Your task to perform on an android device: change timer sound Image 0: 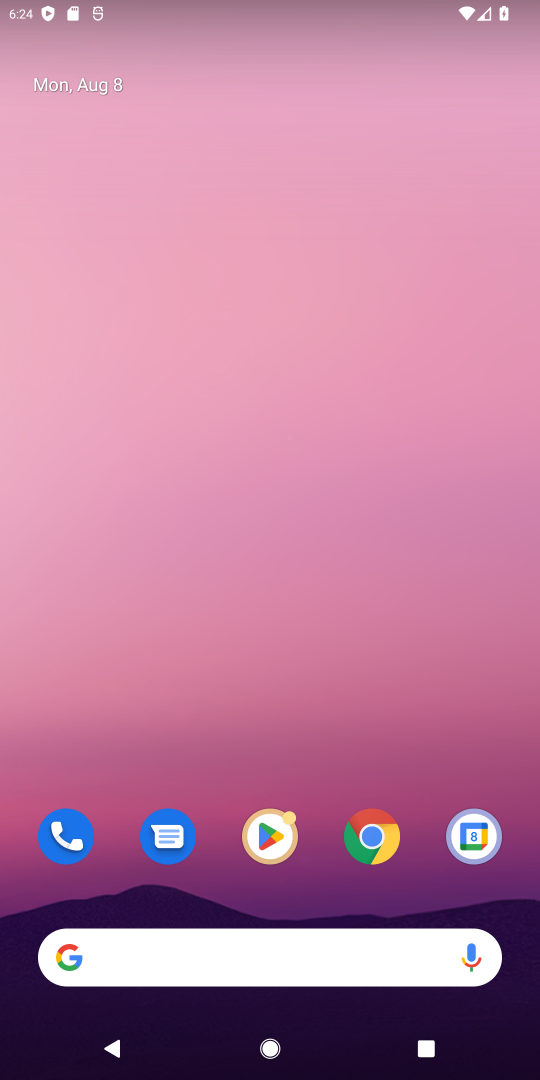
Step 0: drag from (402, 755) to (277, 25)
Your task to perform on an android device: change timer sound Image 1: 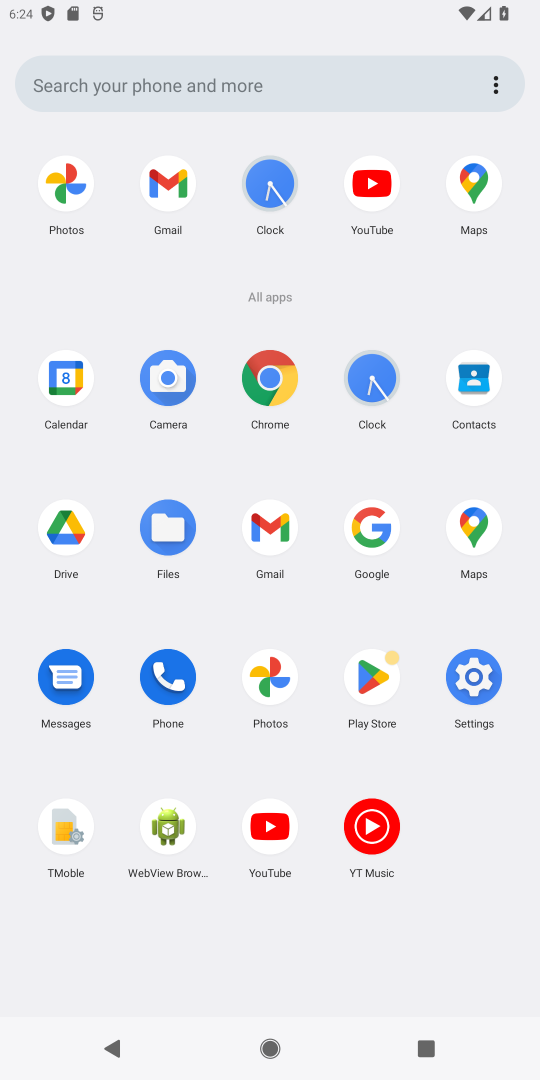
Step 1: click (370, 385)
Your task to perform on an android device: change timer sound Image 2: 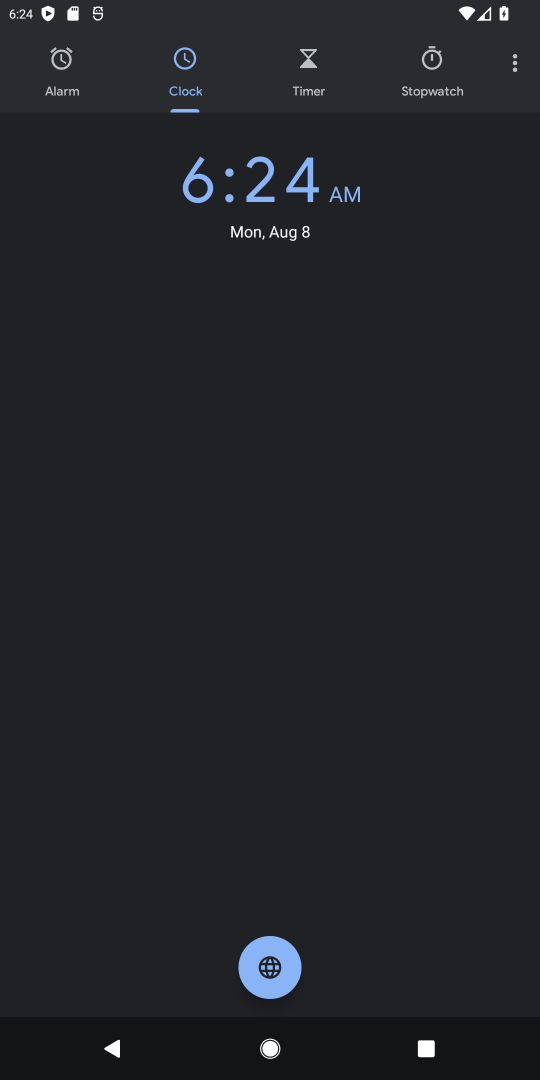
Step 2: click (322, 68)
Your task to perform on an android device: change timer sound Image 3: 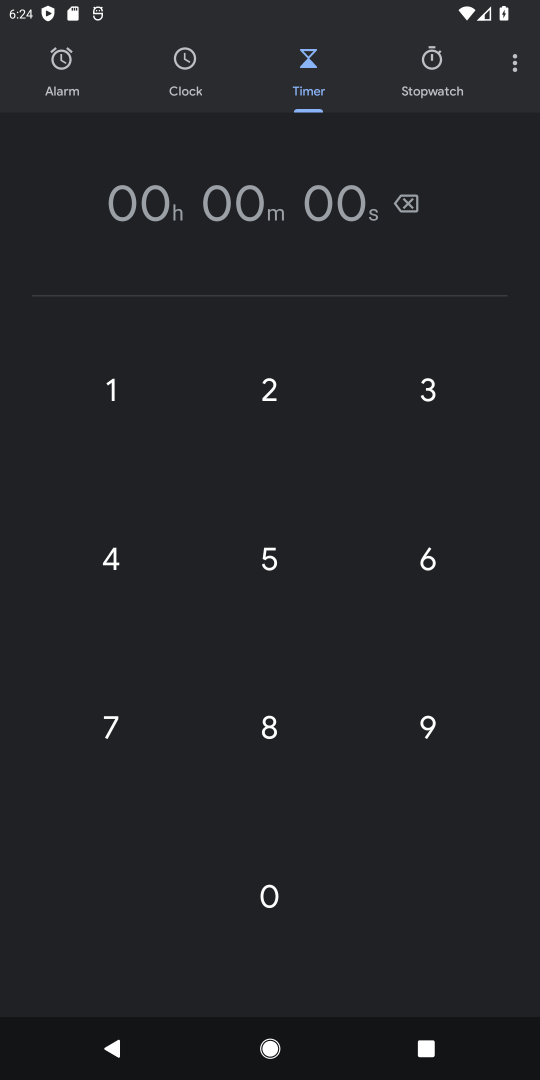
Step 3: click (513, 74)
Your task to perform on an android device: change timer sound Image 4: 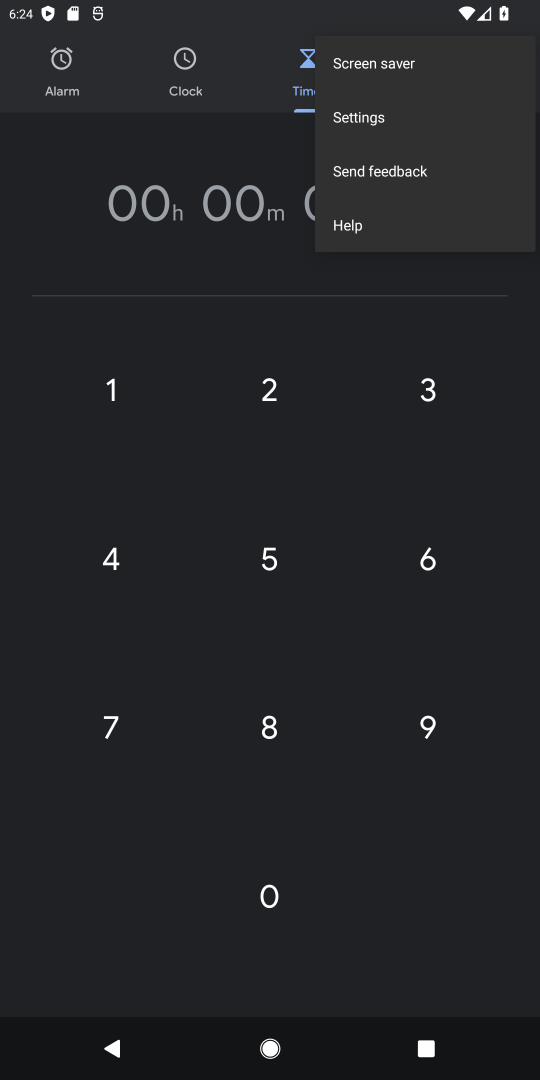
Step 4: click (387, 123)
Your task to perform on an android device: change timer sound Image 5: 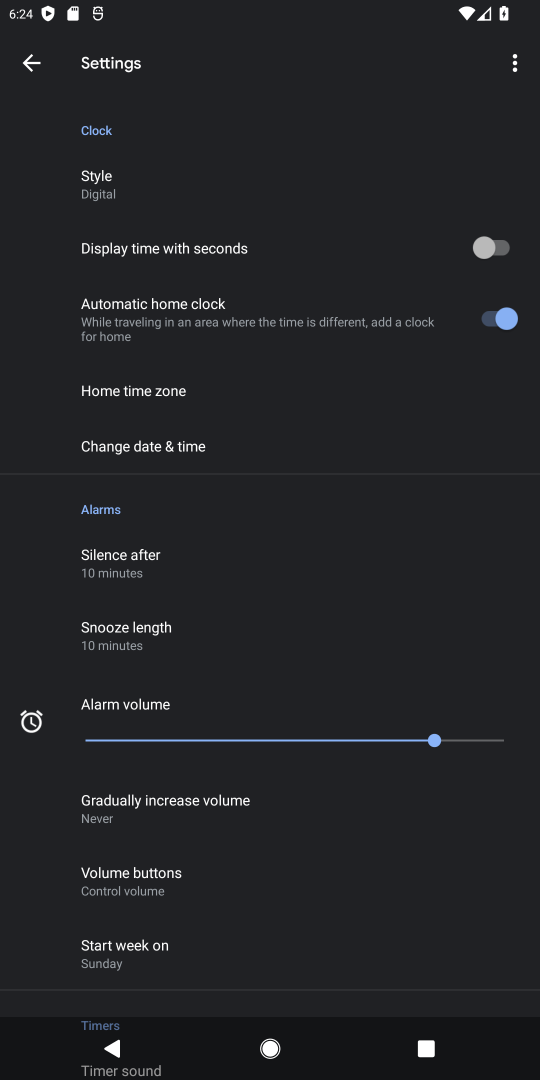
Step 5: drag from (227, 671) to (204, 125)
Your task to perform on an android device: change timer sound Image 6: 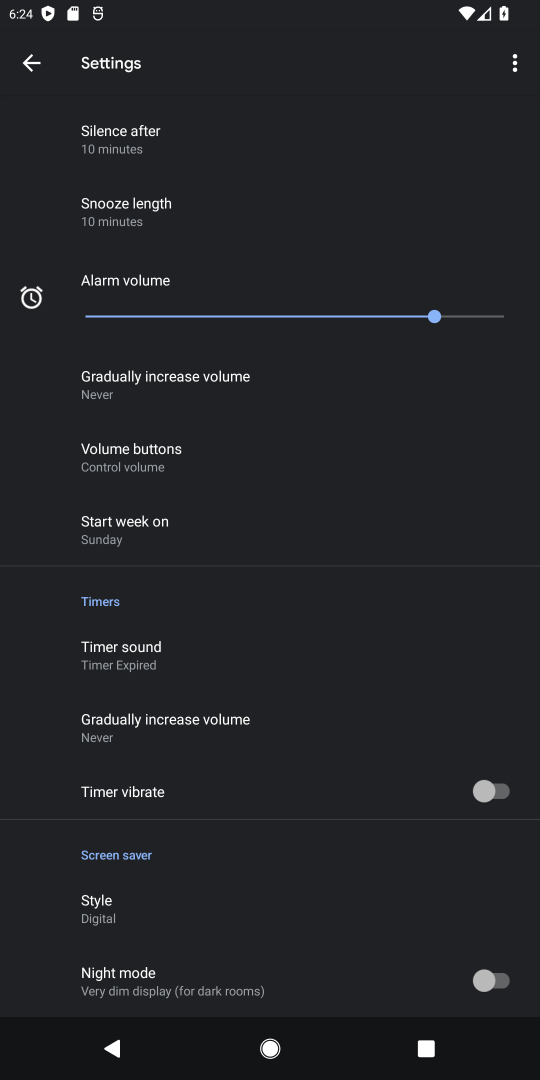
Step 6: click (252, 650)
Your task to perform on an android device: change timer sound Image 7: 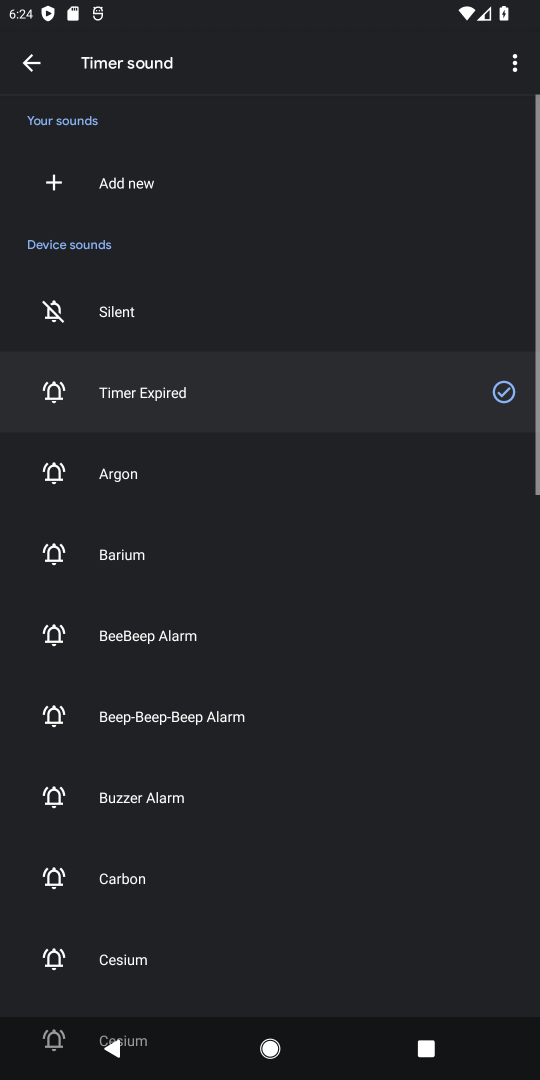
Step 7: click (210, 487)
Your task to perform on an android device: change timer sound Image 8: 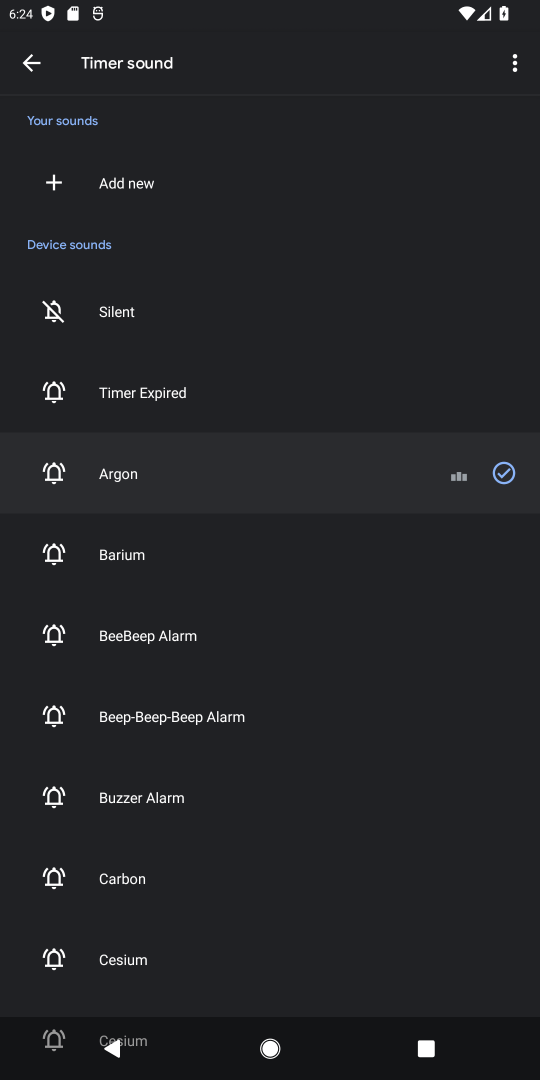
Step 8: task complete